Your task to perform on an android device: turn off smart reply in the gmail app Image 0: 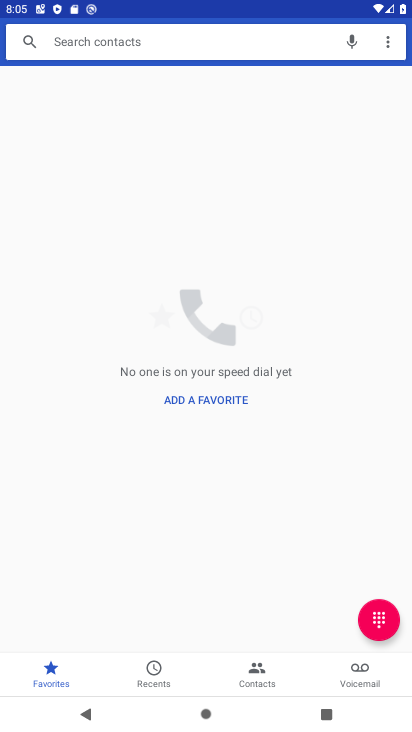
Step 0: press home button
Your task to perform on an android device: turn off smart reply in the gmail app Image 1: 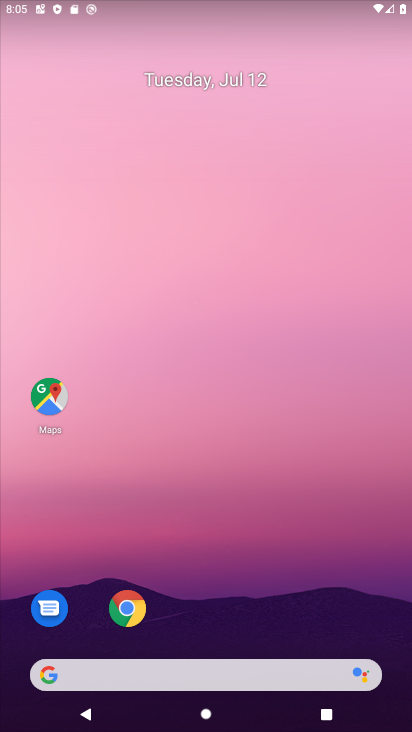
Step 1: drag from (92, 689) to (69, 166)
Your task to perform on an android device: turn off smart reply in the gmail app Image 2: 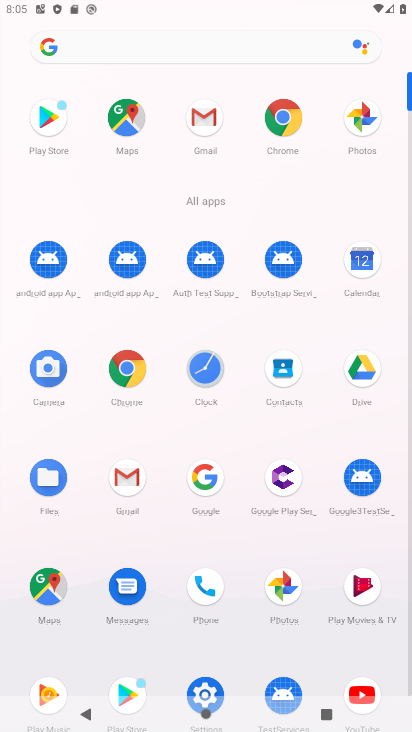
Step 2: click (208, 126)
Your task to perform on an android device: turn off smart reply in the gmail app Image 3: 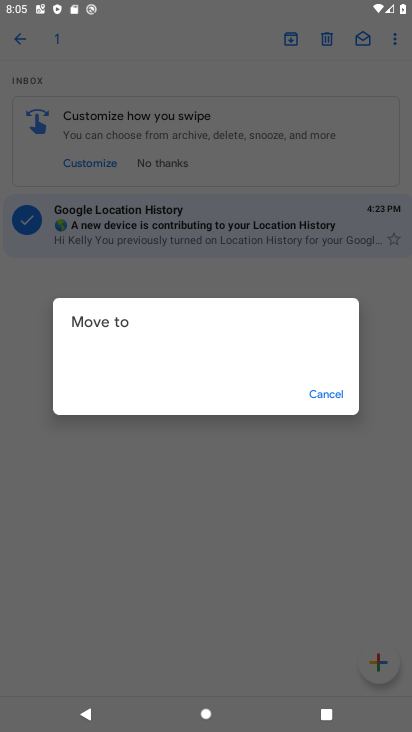
Step 3: click (342, 394)
Your task to perform on an android device: turn off smart reply in the gmail app Image 4: 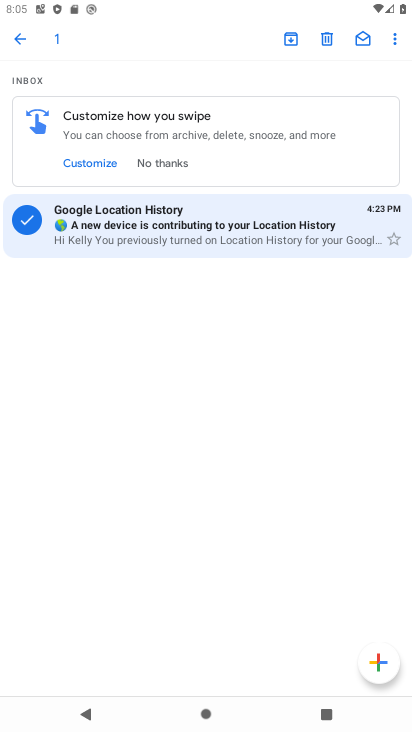
Step 4: click (16, 46)
Your task to perform on an android device: turn off smart reply in the gmail app Image 5: 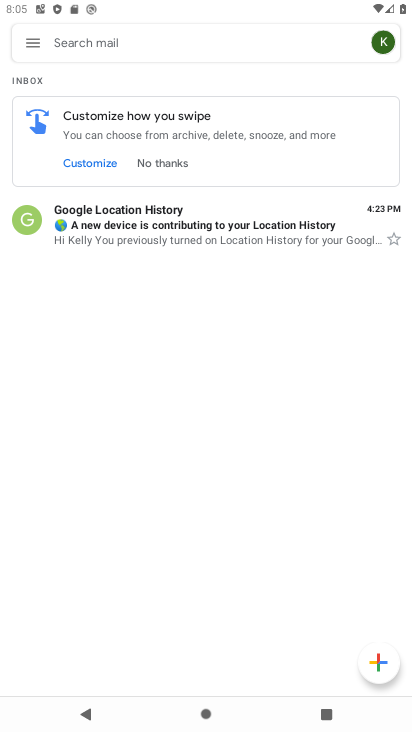
Step 5: click (31, 40)
Your task to perform on an android device: turn off smart reply in the gmail app Image 6: 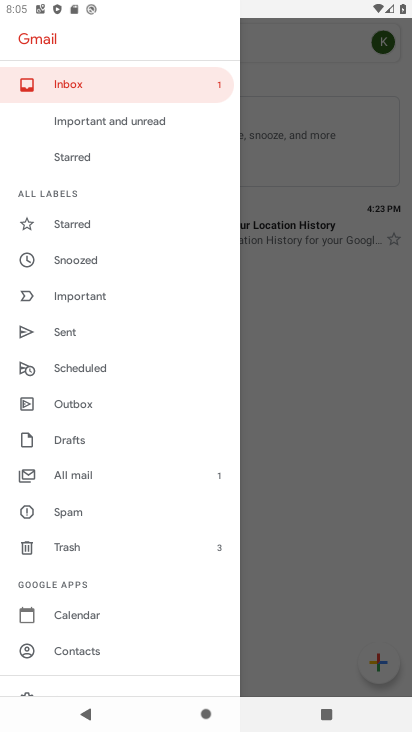
Step 6: drag from (86, 649) to (91, 121)
Your task to perform on an android device: turn off smart reply in the gmail app Image 7: 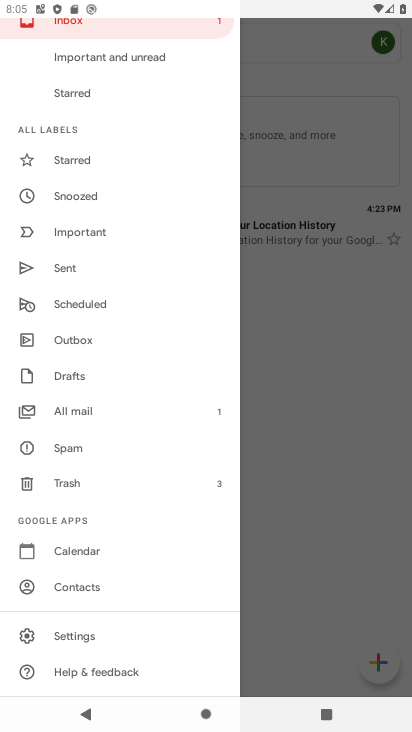
Step 7: click (65, 634)
Your task to perform on an android device: turn off smart reply in the gmail app Image 8: 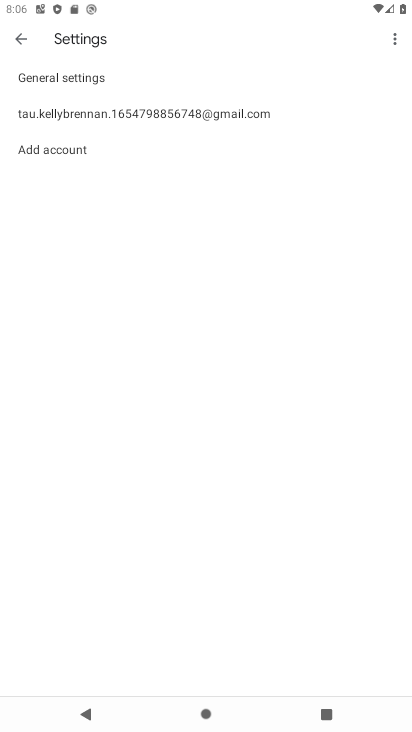
Step 8: click (330, 124)
Your task to perform on an android device: turn off smart reply in the gmail app Image 9: 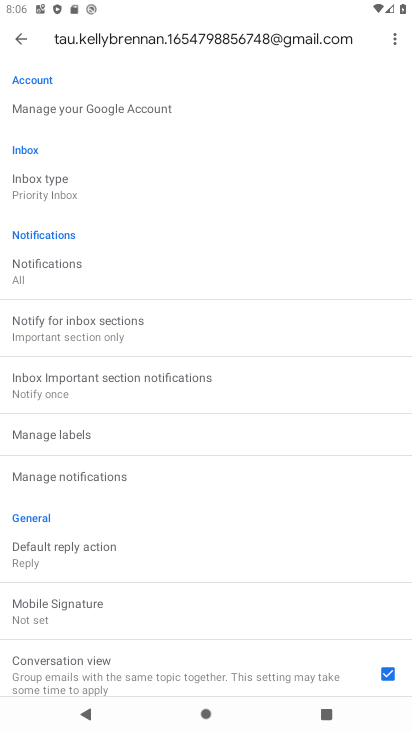
Step 9: drag from (114, 622) to (158, 327)
Your task to perform on an android device: turn off smart reply in the gmail app Image 10: 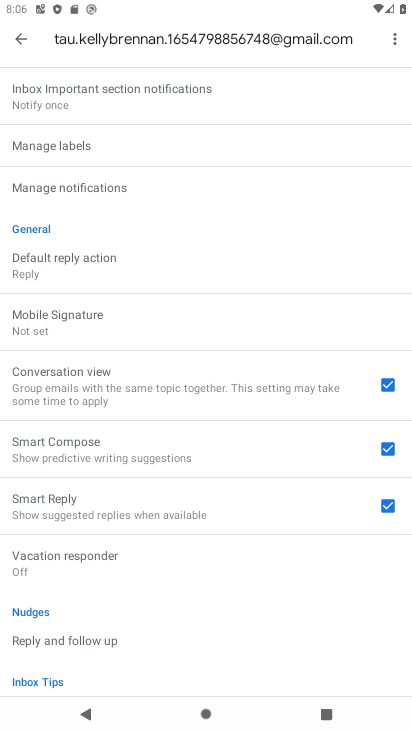
Step 10: click (386, 498)
Your task to perform on an android device: turn off smart reply in the gmail app Image 11: 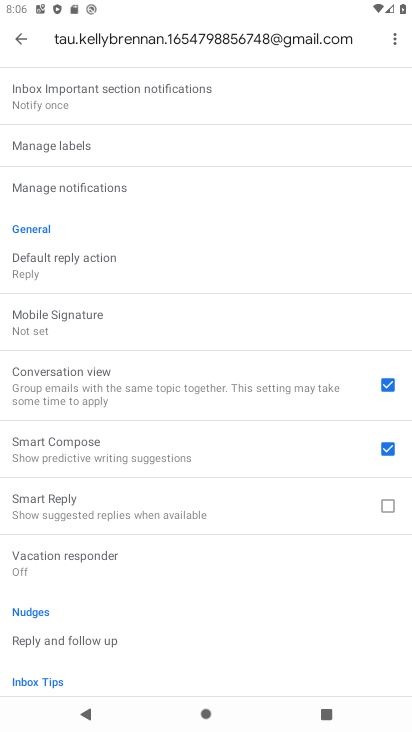
Step 11: task complete